Your task to perform on an android device: open app "YouTube Kids" (install if not already installed) Image 0: 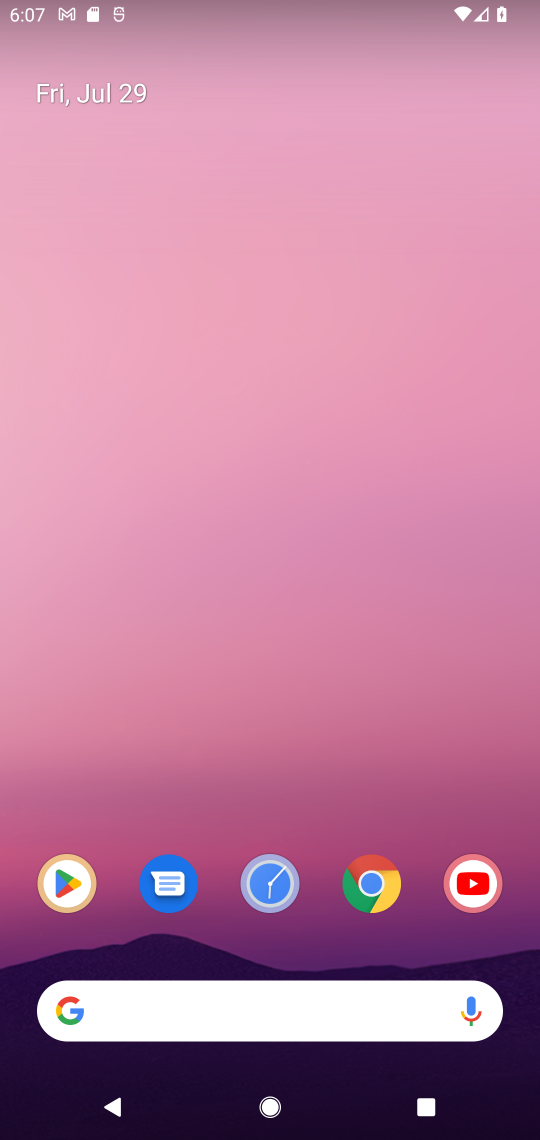
Step 0: click (68, 880)
Your task to perform on an android device: open app "YouTube Kids" (install if not already installed) Image 1: 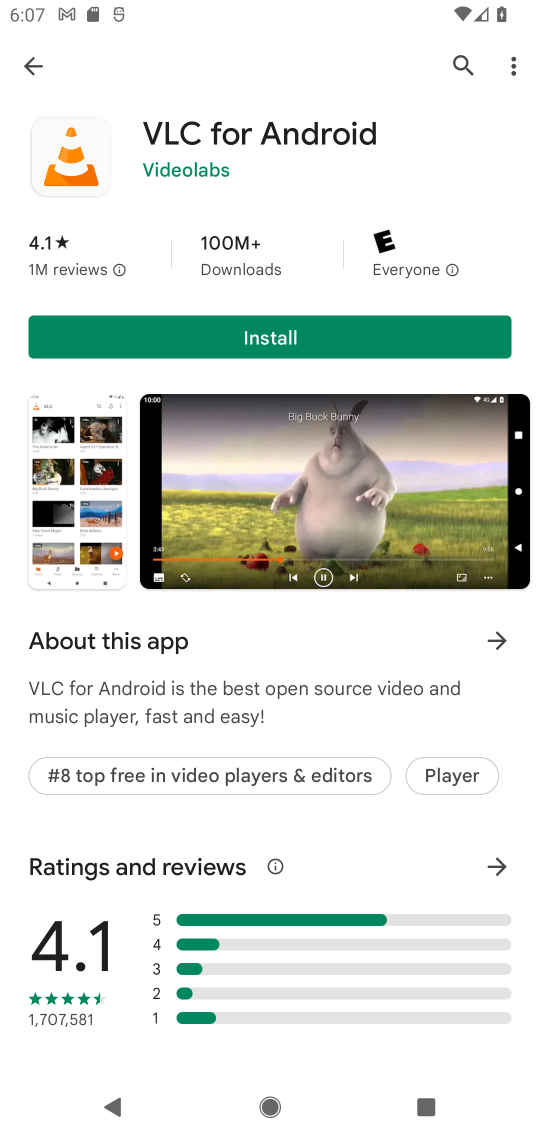
Step 1: click (468, 69)
Your task to perform on an android device: open app "YouTube Kids" (install if not already installed) Image 2: 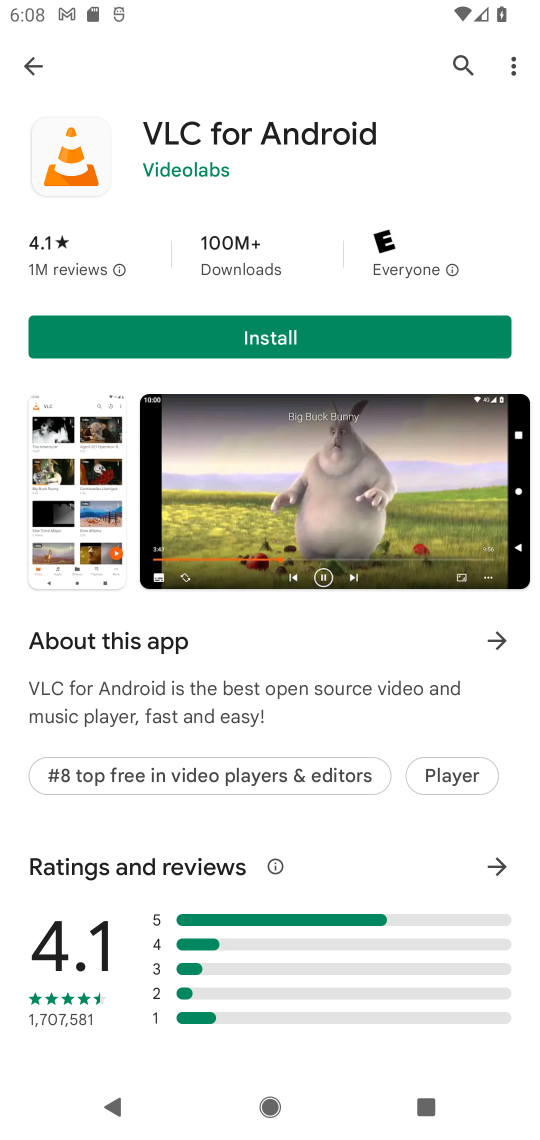
Step 2: click (468, 69)
Your task to perform on an android device: open app "YouTube Kids" (install if not already installed) Image 3: 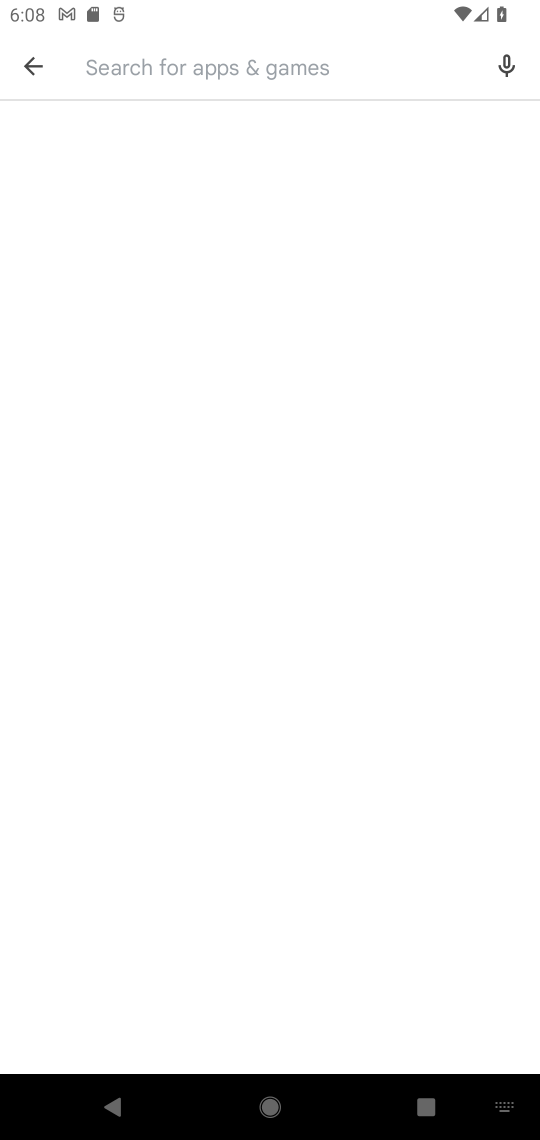
Step 3: click (288, 68)
Your task to perform on an android device: open app "YouTube Kids" (install if not already installed) Image 4: 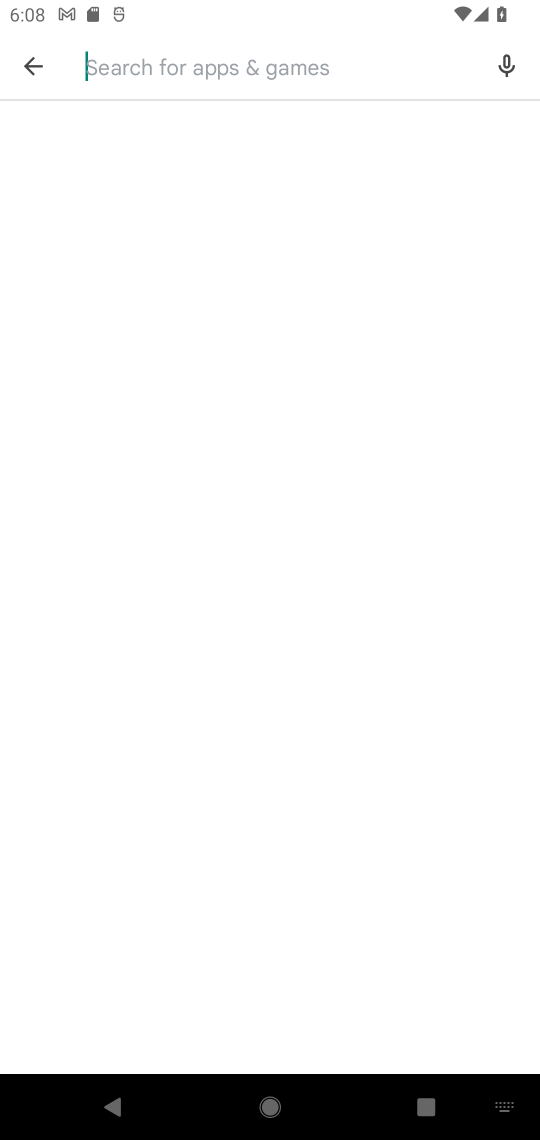
Step 4: type "youtubekids"
Your task to perform on an android device: open app "YouTube Kids" (install if not already installed) Image 5: 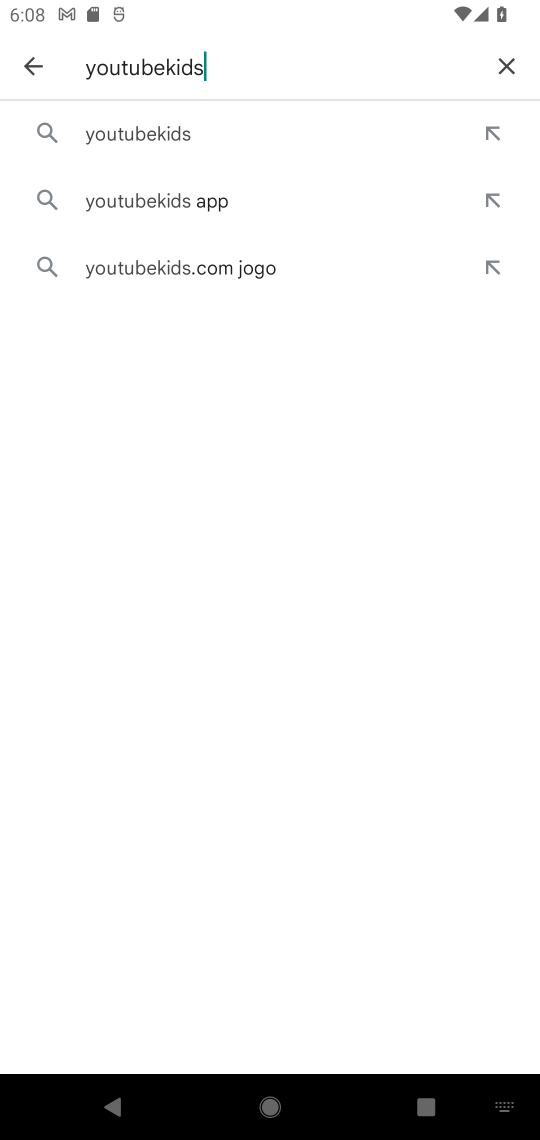
Step 5: click (233, 136)
Your task to perform on an android device: open app "YouTube Kids" (install if not already installed) Image 6: 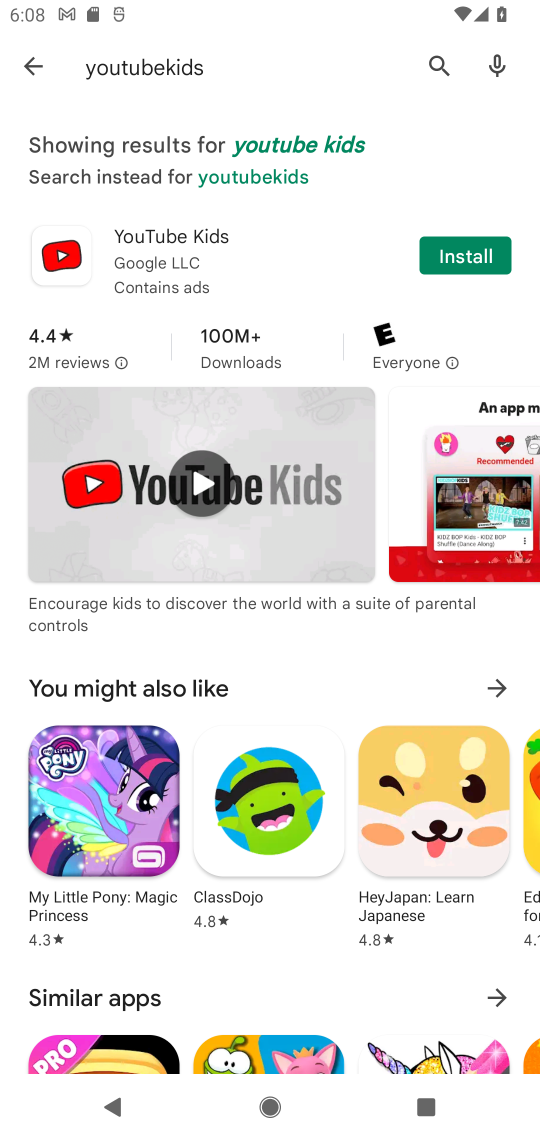
Step 6: click (464, 261)
Your task to perform on an android device: open app "YouTube Kids" (install if not already installed) Image 7: 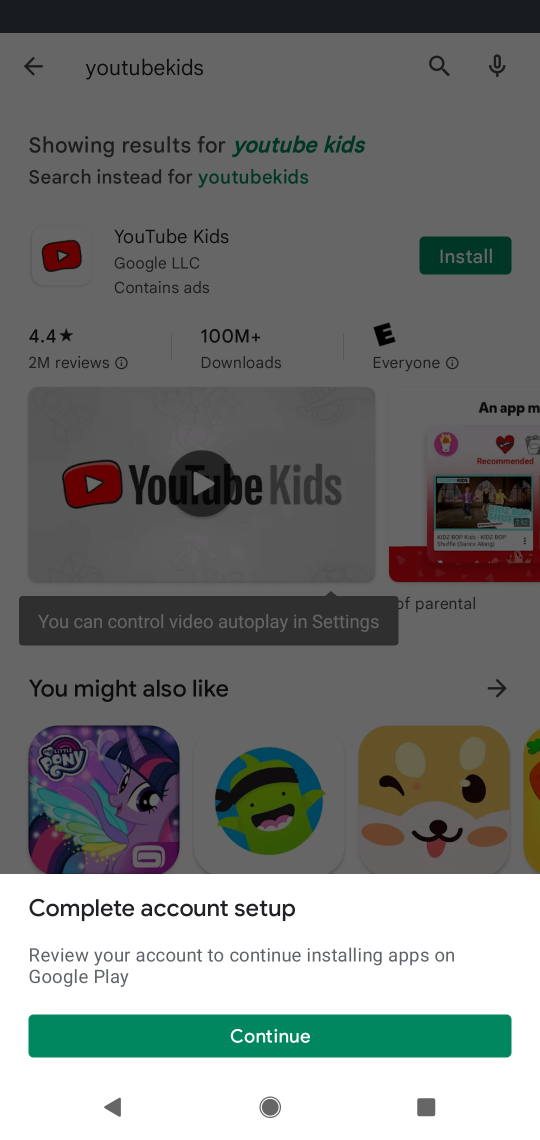
Step 7: click (239, 1048)
Your task to perform on an android device: open app "YouTube Kids" (install if not already installed) Image 8: 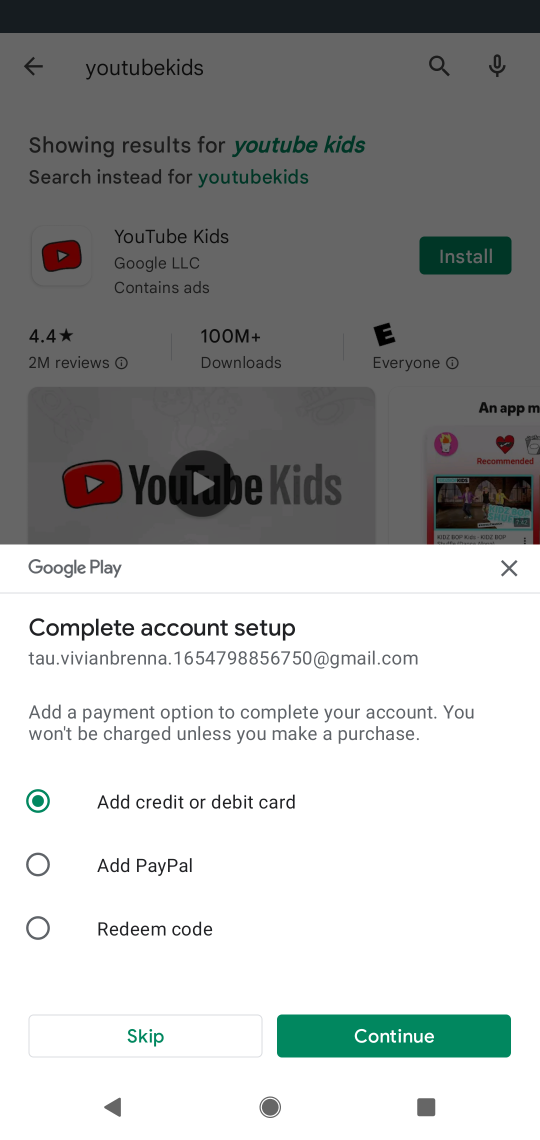
Step 8: click (155, 1038)
Your task to perform on an android device: open app "YouTube Kids" (install if not already installed) Image 9: 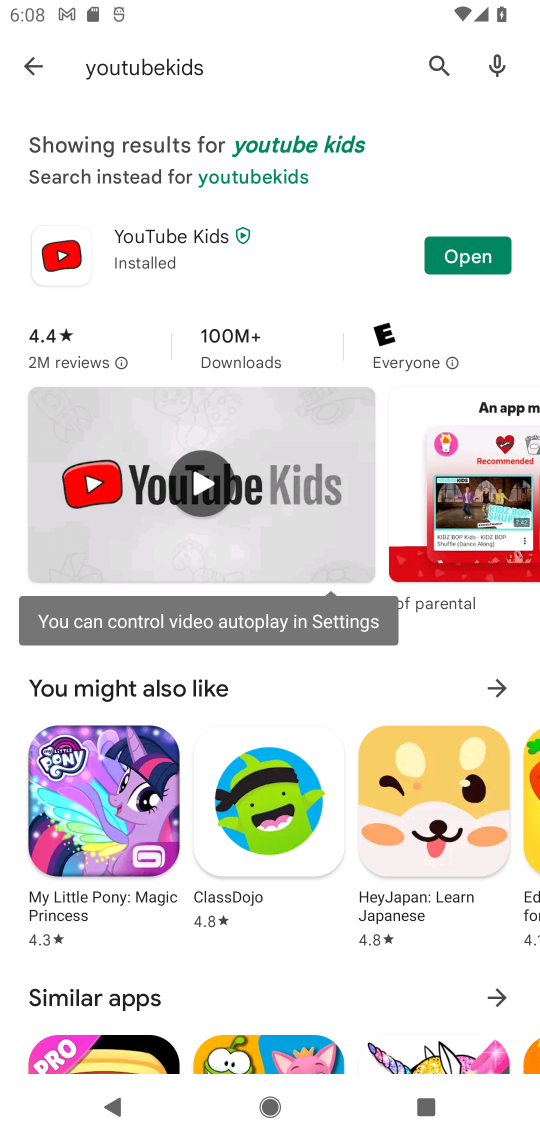
Step 9: click (461, 258)
Your task to perform on an android device: open app "YouTube Kids" (install if not already installed) Image 10: 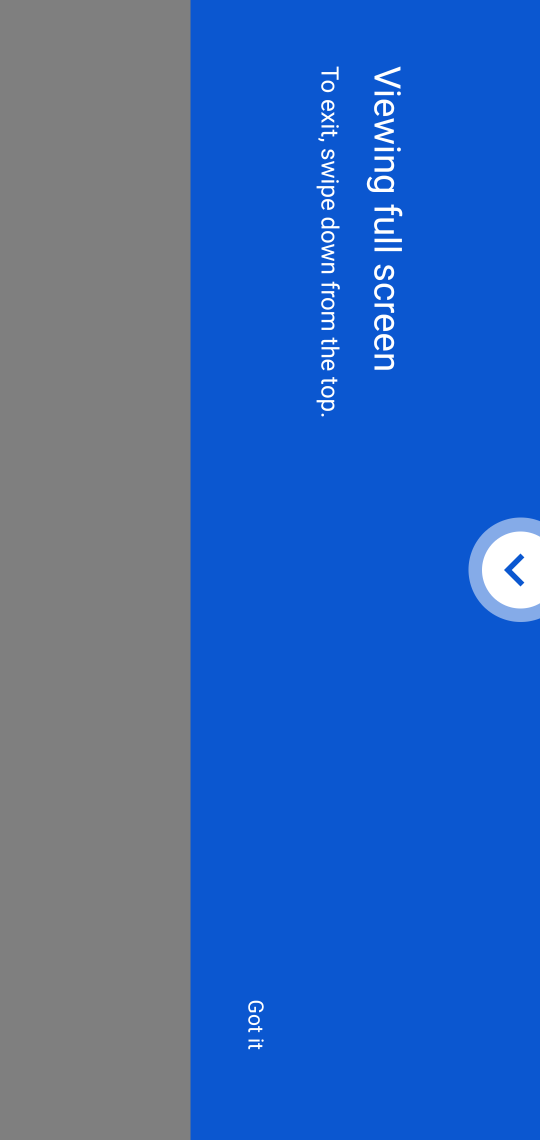
Step 10: task complete